Your task to perform on an android device: Turn off the flashlight Image 0: 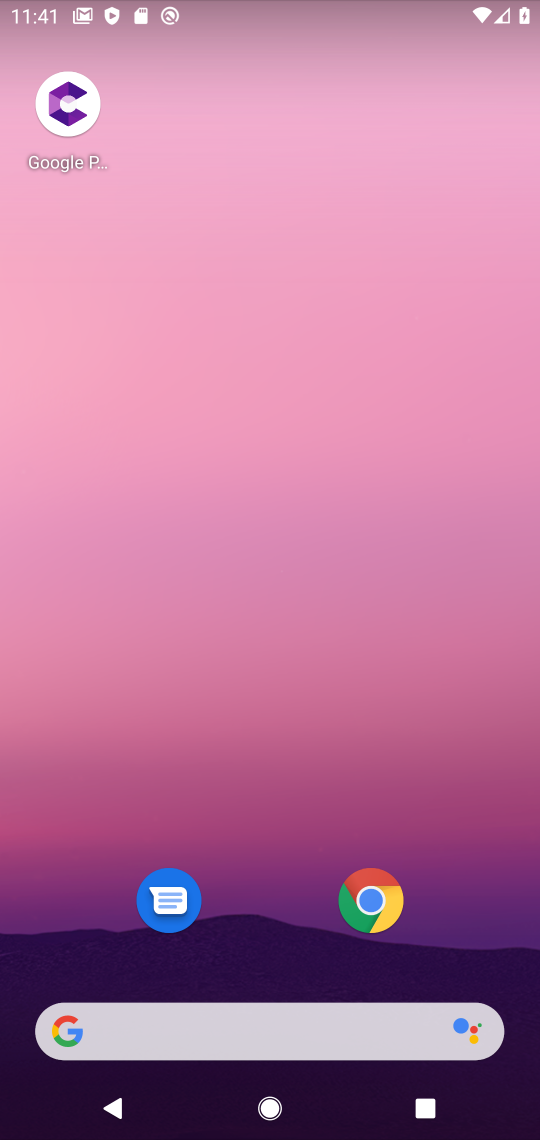
Step 0: drag from (281, 744) to (334, 7)
Your task to perform on an android device: Turn off the flashlight Image 1: 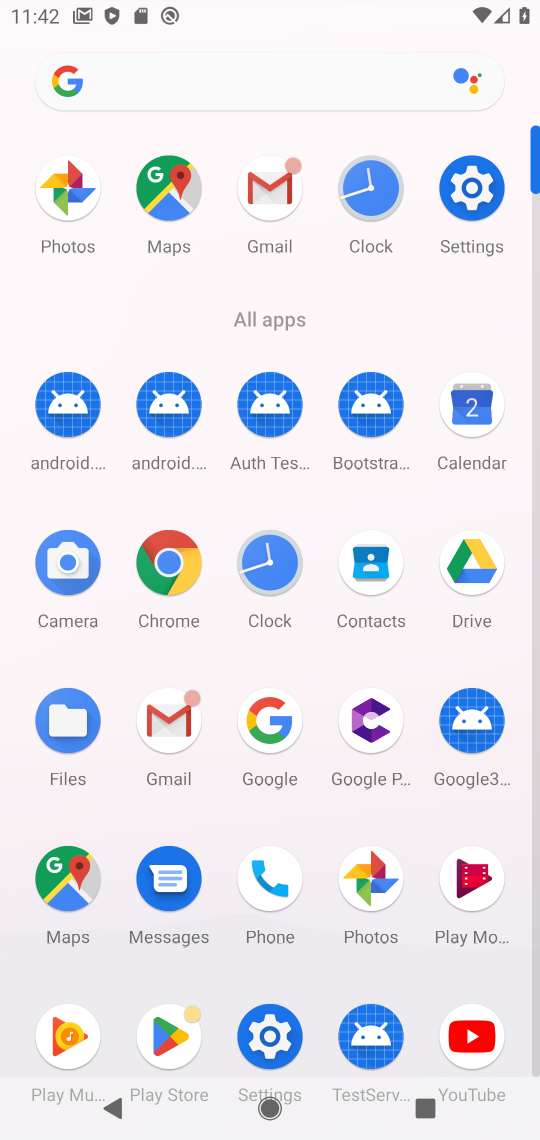
Step 1: click (467, 171)
Your task to perform on an android device: Turn off the flashlight Image 2: 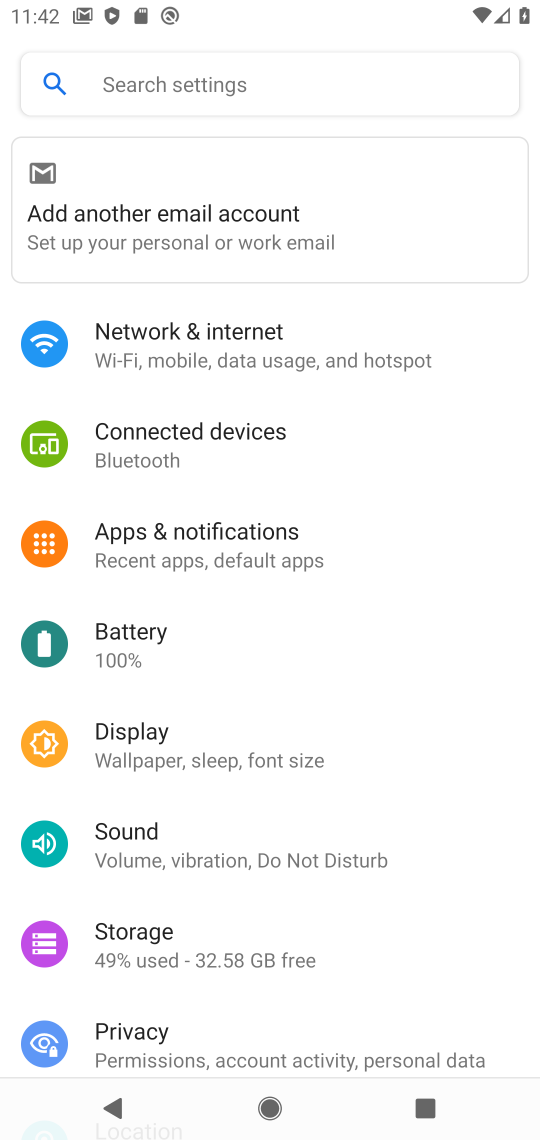
Step 2: click (147, 736)
Your task to perform on an android device: Turn off the flashlight Image 3: 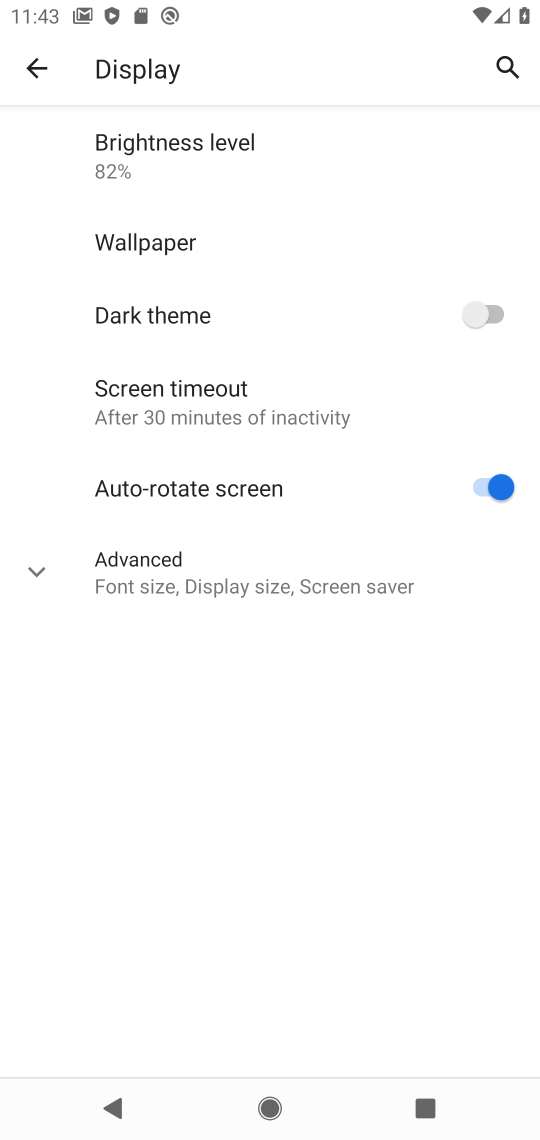
Step 3: click (237, 391)
Your task to perform on an android device: Turn off the flashlight Image 4: 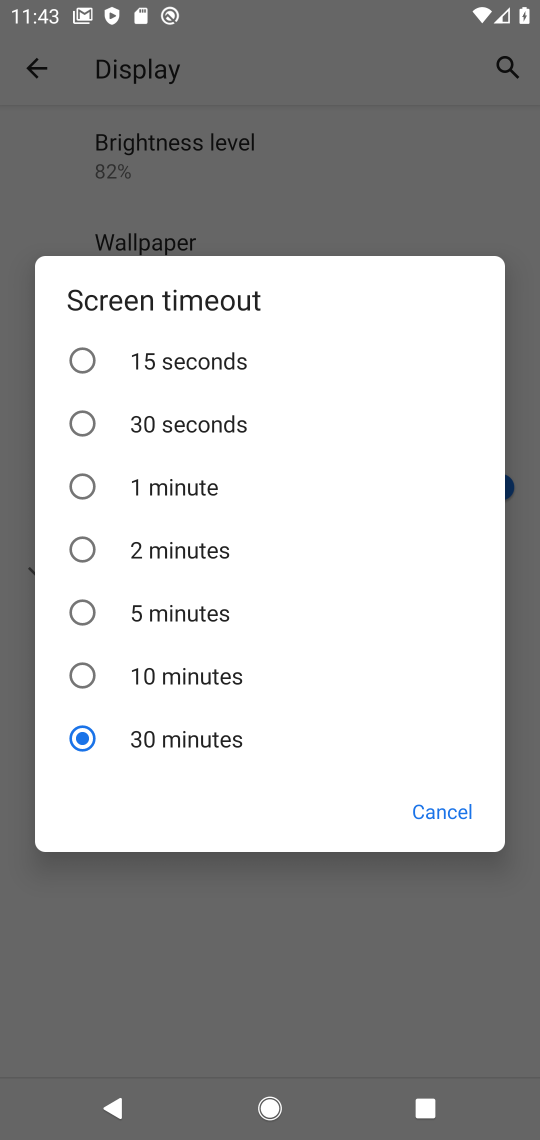
Step 4: task complete